Your task to perform on an android device: turn off wifi Image 0: 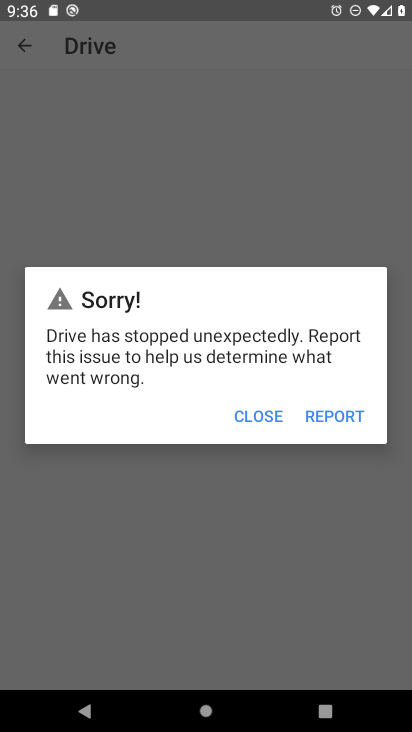
Step 0: press home button
Your task to perform on an android device: turn off wifi Image 1: 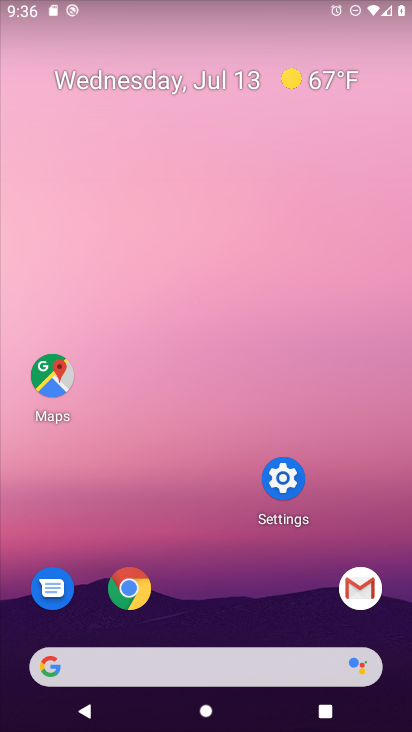
Step 1: click (288, 495)
Your task to perform on an android device: turn off wifi Image 2: 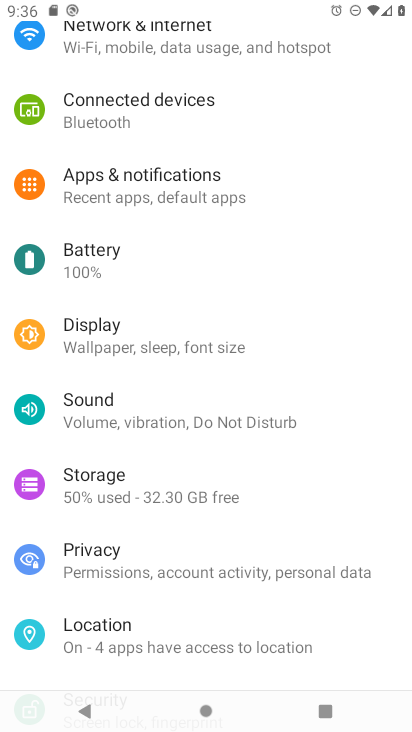
Step 2: drag from (124, 56) to (133, 262)
Your task to perform on an android device: turn off wifi Image 3: 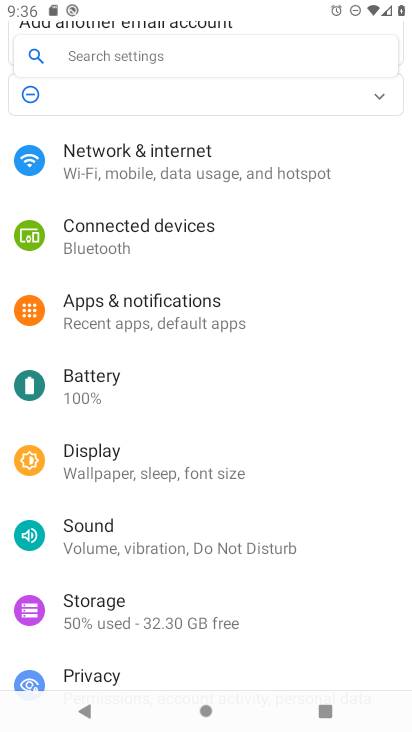
Step 3: click (136, 164)
Your task to perform on an android device: turn off wifi Image 4: 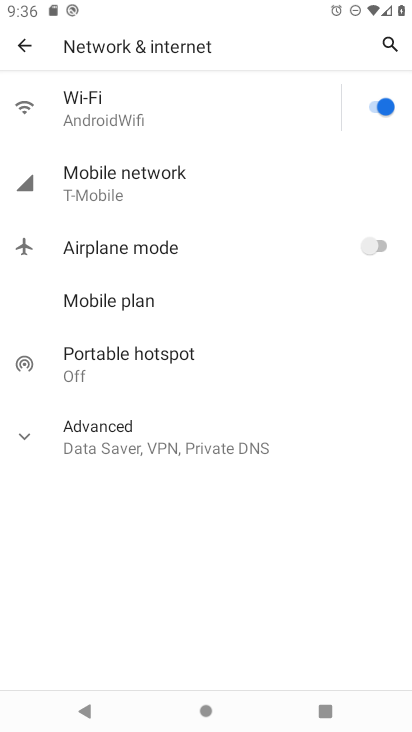
Step 4: click (105, 104)
Your task to perform on an android device: turn off wifi Image 5: 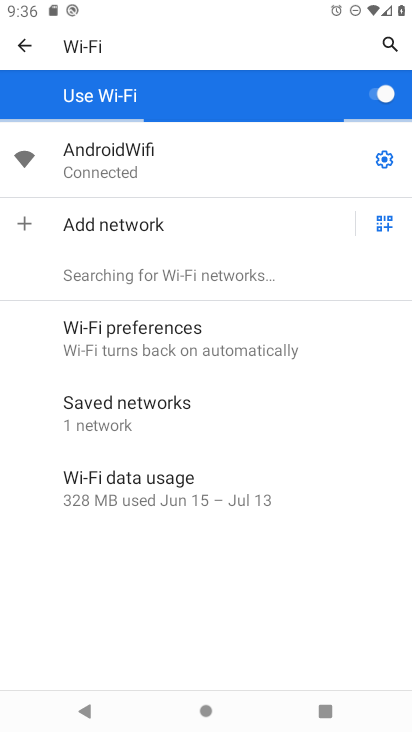
Step 5: click (372, 99)
Your task to perform on an android device: turn off wifi Image 6: 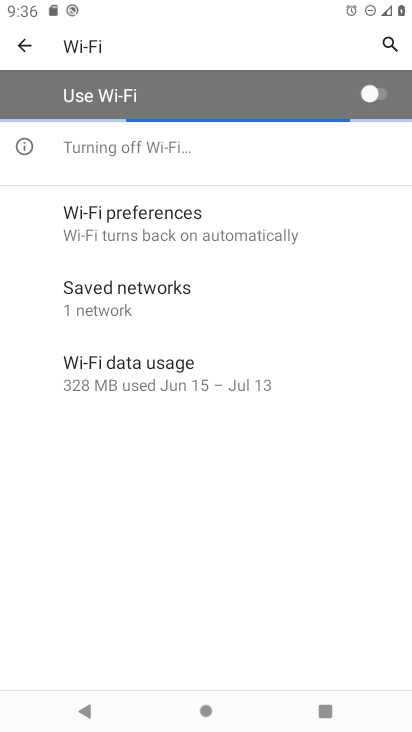
Step 6: task complete